Your task to perform on an android device: show emergency info Image 0: 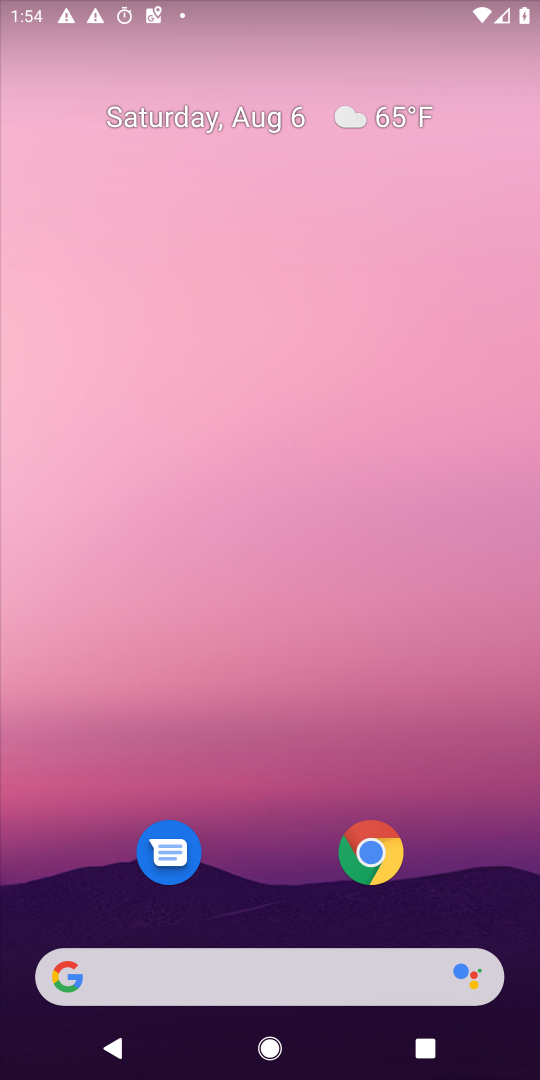
Step 0: press home button
Your task to perform on an android device: show emergency info Image 1: 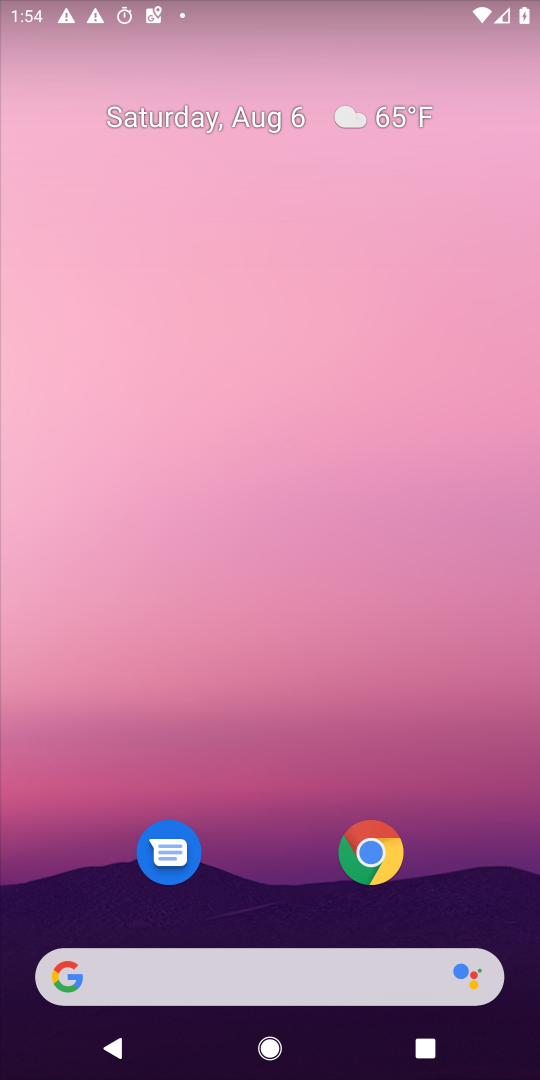
Step 1: drag from (333, 1020) to (295, 525)
Your task to perform on an android device: show emergency info Image 2: 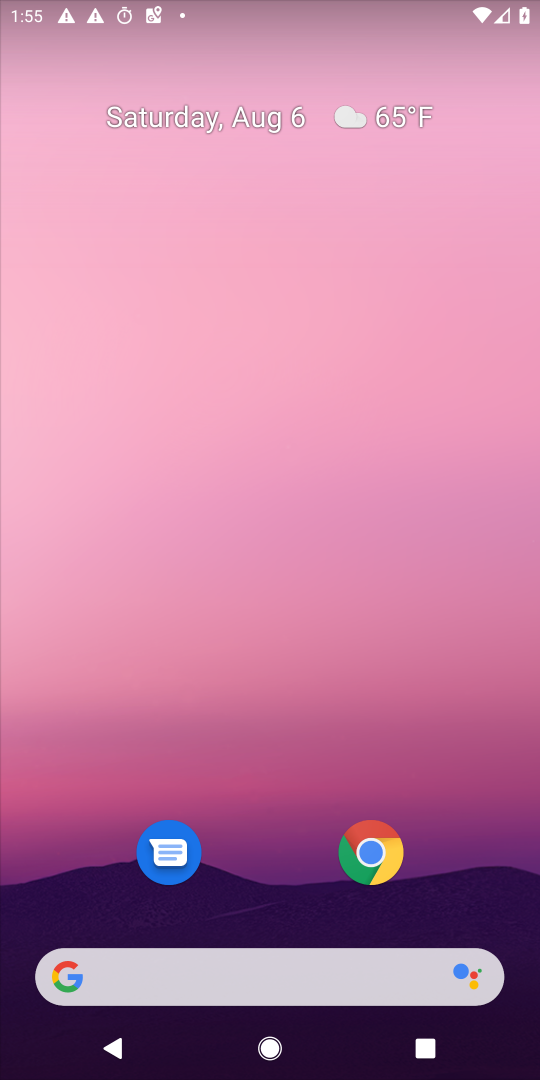
Step 2: drag from (332, 1000) to (313, 367)
Your task to perform on an android device: show emergency info Image 3: 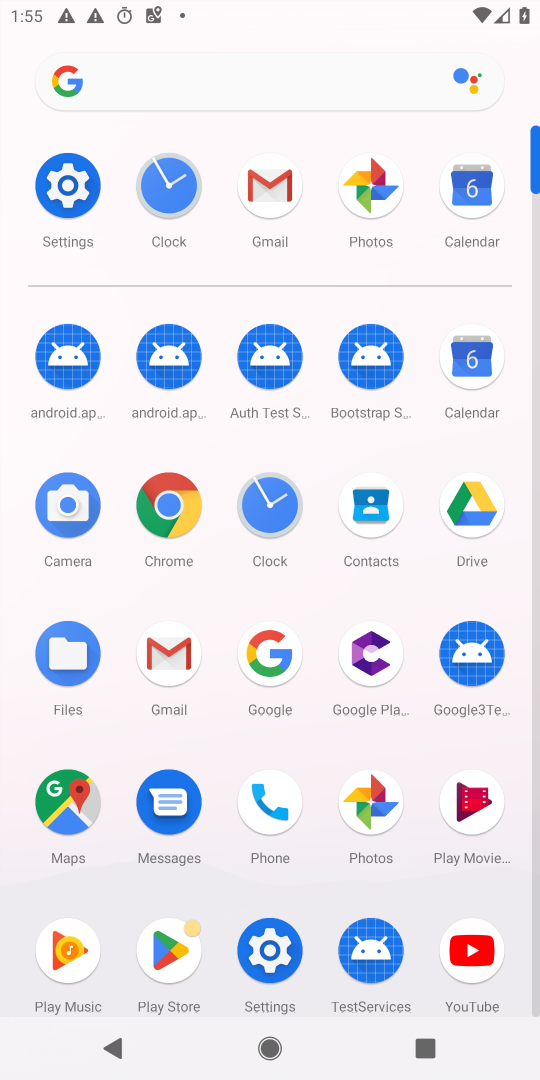
Step 3: click (73, 175)
Your task to perform on an android device: show emergency info Image 4: 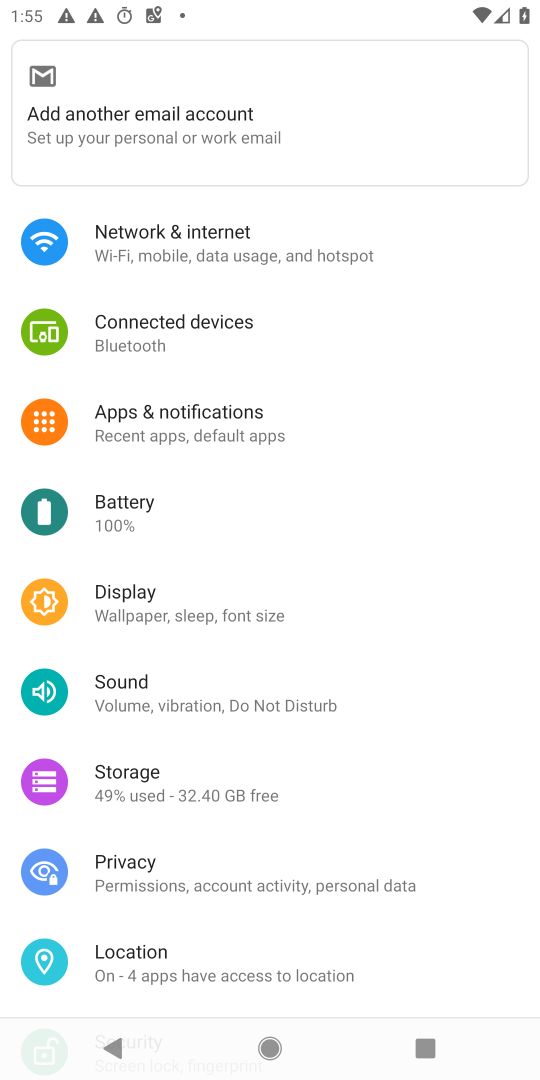
Step 4: drag from (180, 281) to (249, 442)
Your task to perform on an android device: show emergency info Image 5: 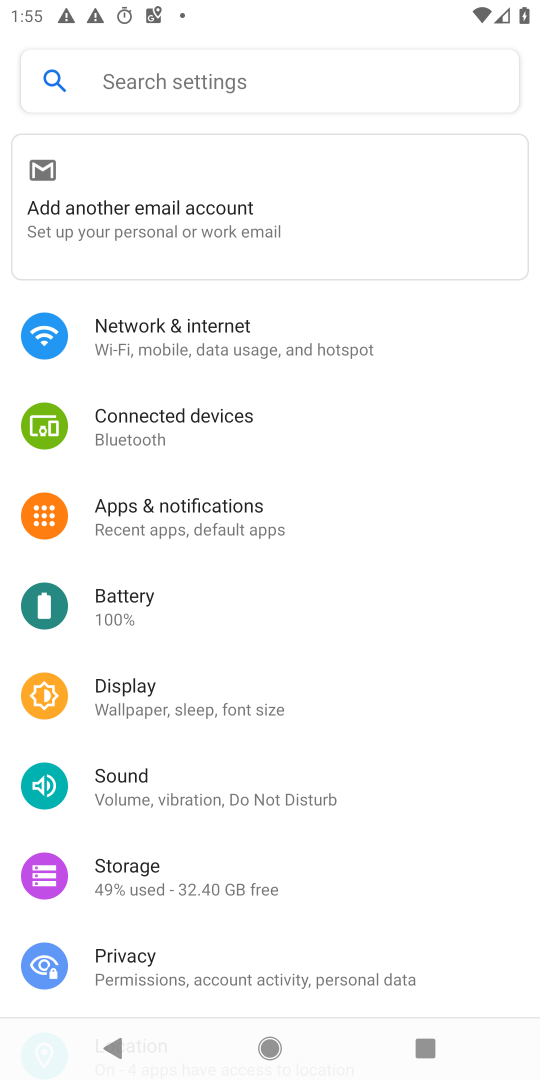
Step 5: click (113, 85)
Your task to perform on an android device: show emergency info Image 6: 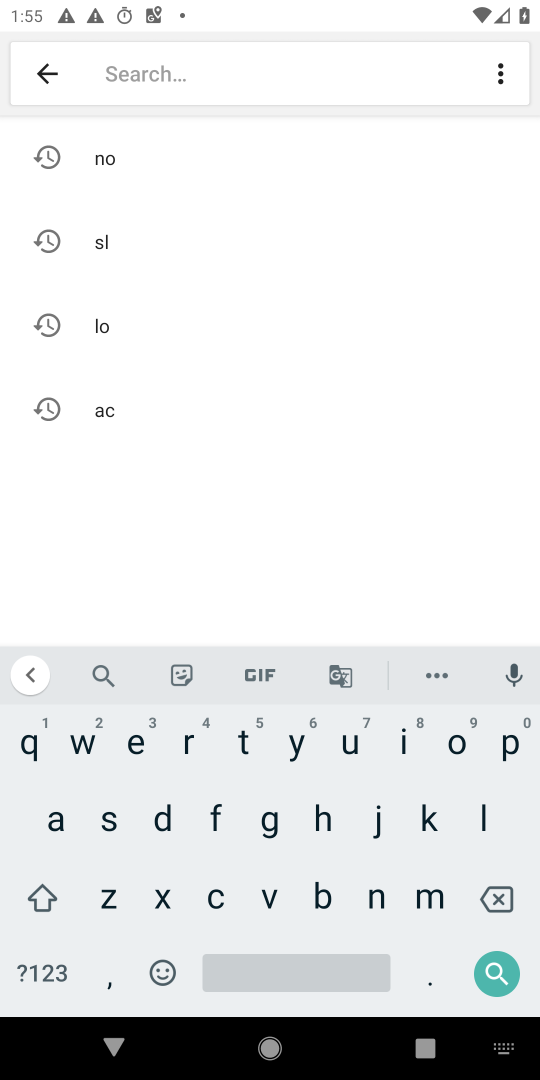
Step 6: click (134, 750)
Your task to perform on an android device: show emergency info Image 7: 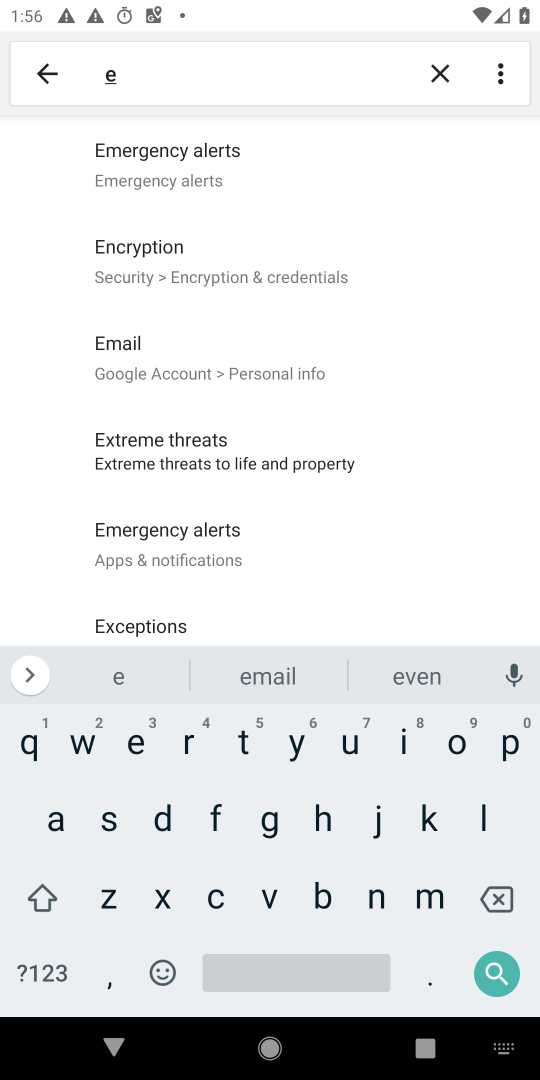
Step 7: click (430, 895)
Your task to perform on an android device: show emergency info Image 8: 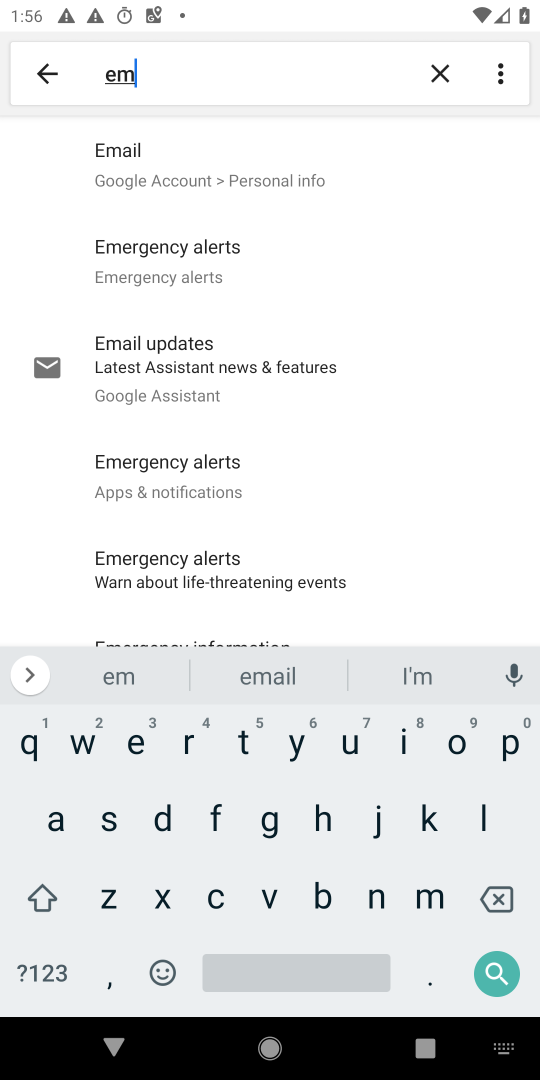
Step 8: click (131, 745)
Your task to perform on an android device: show emergency info Image 9: 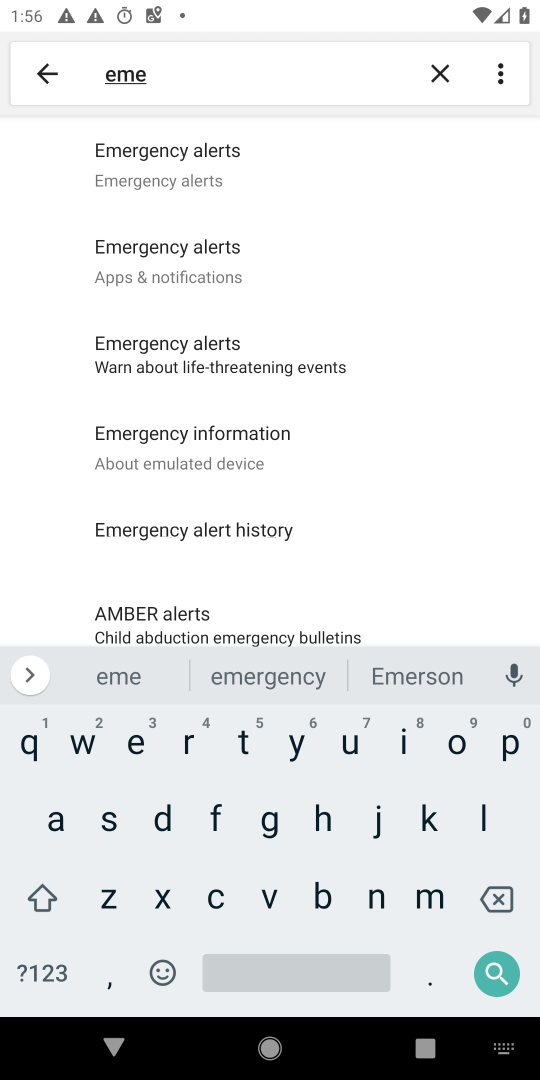
Step 9: click (242, 669)
Your task to perform on an android device: show emergency info Image 10: 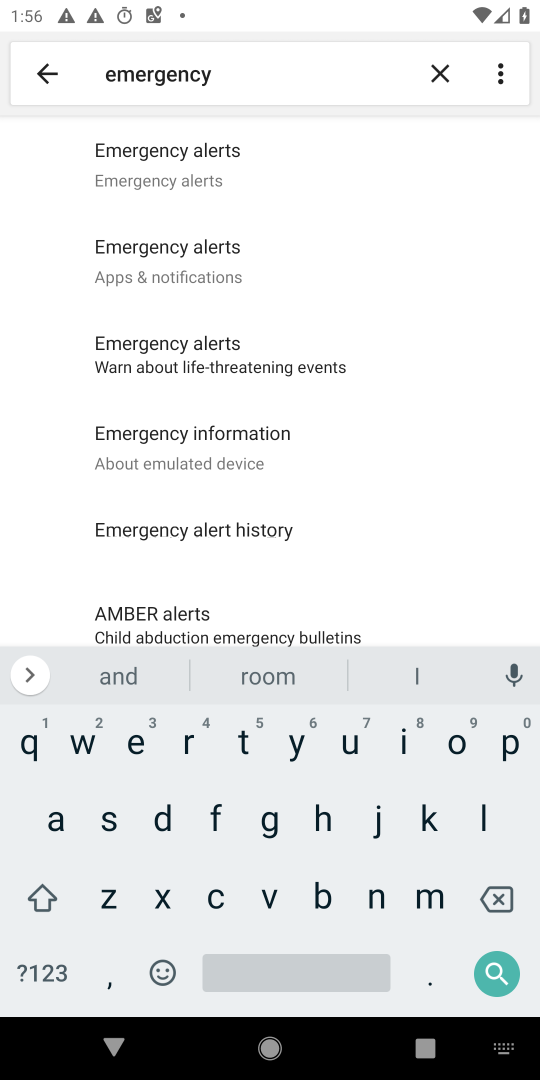
Step 10: click (404, 737)
Your task to perform on an android device: show emergency info Image 11: 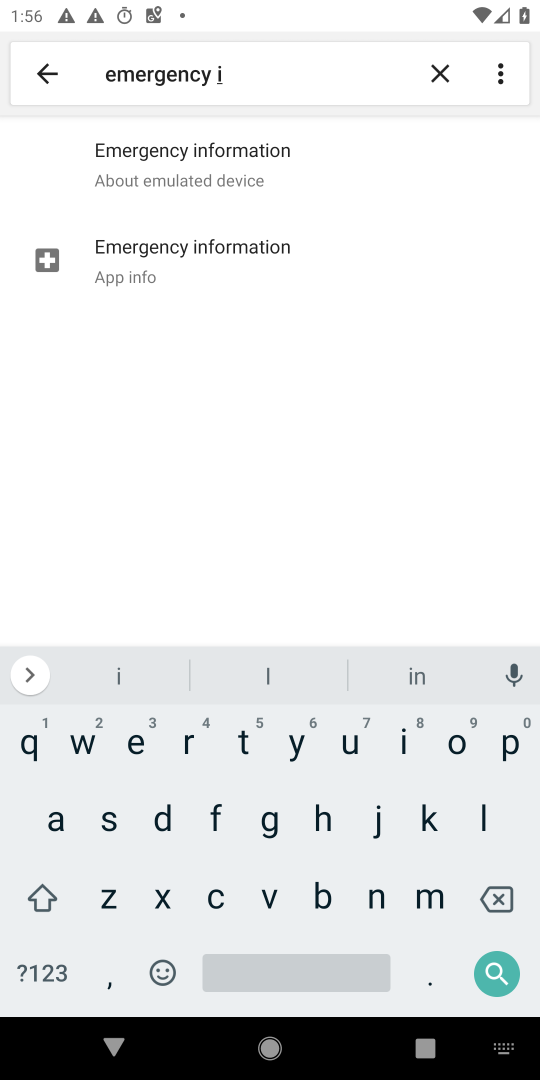
Step 11: click (230, 153)
Your task to perform on an android device: show emergency info Image 12: 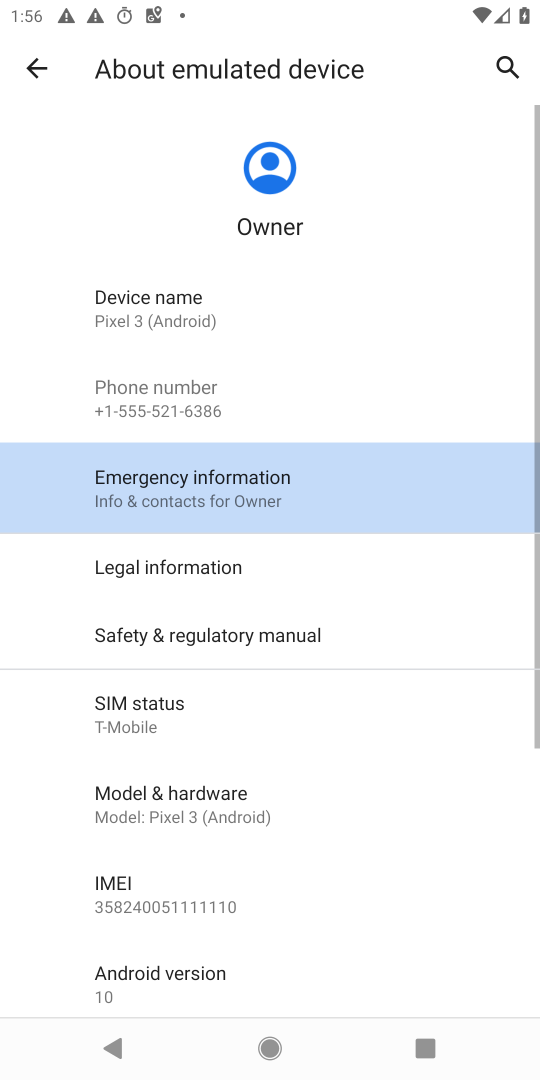
Step 12: click (147, 463)
Your task to perform on an android device: show emergency info Image 13: 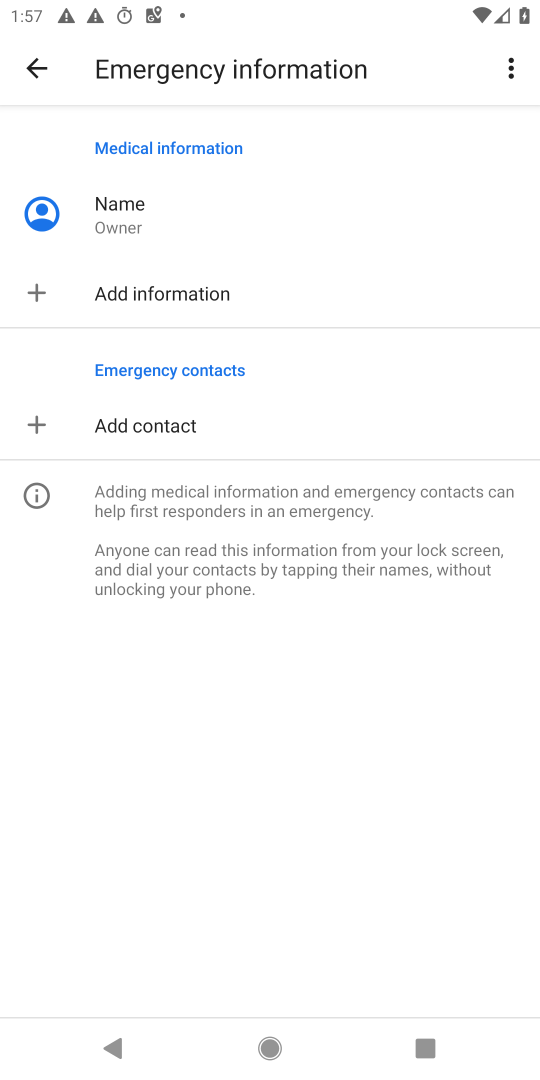
Step 13: task complete